Your task to perform on an android device: What's the weather? Image 0: 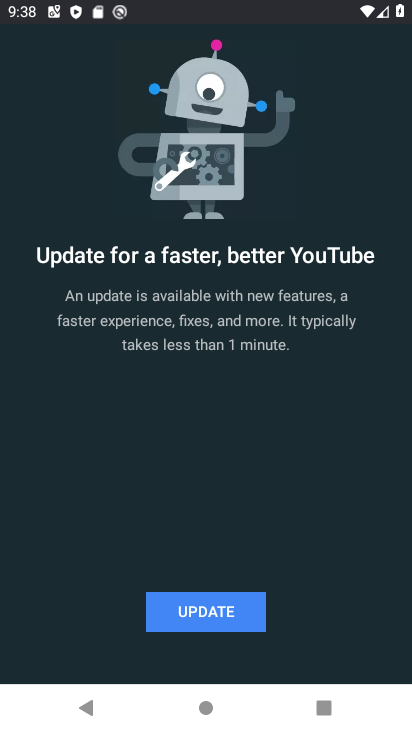
Step 0: press back button
Your task to perform on an android device: What's the weather? Image 1: 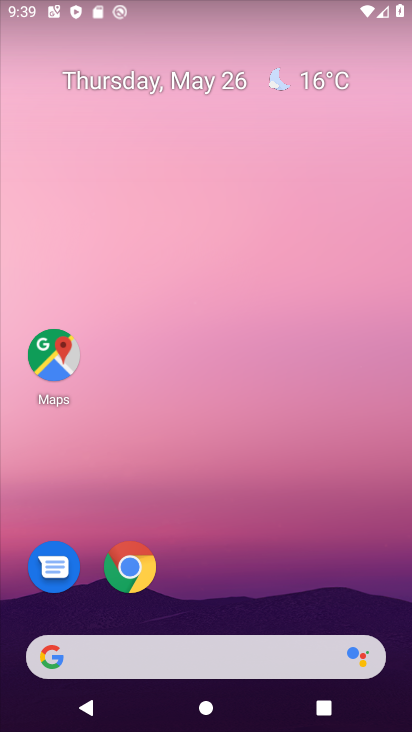
Step 1: drag from (3, 252) to (407, 255)
Your task to perform on an android device: What's the weather? Image 2: 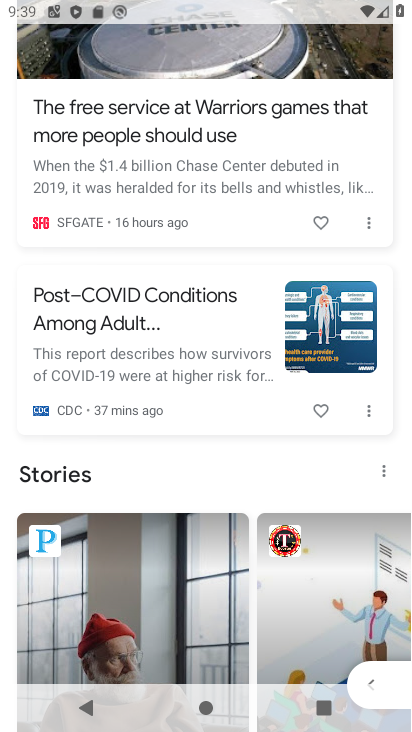
Step 2: drag from (289, 59) to (320, 664)
Your task to perform on an android device: What's the weather? Image 3: 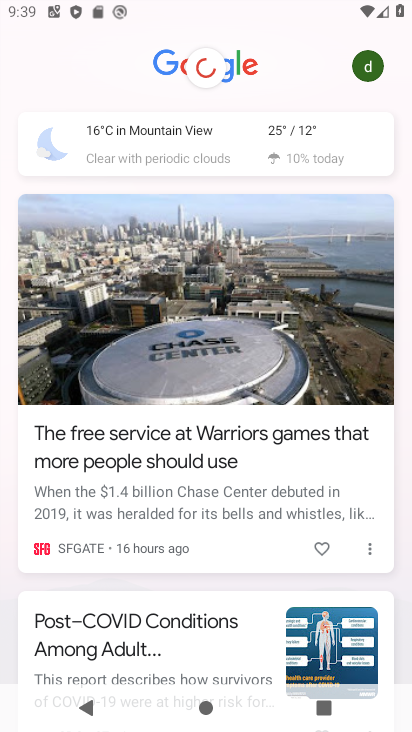
Step 3: click (280, 128)
Your task to perform on an android device: What's the weather? Image 4: 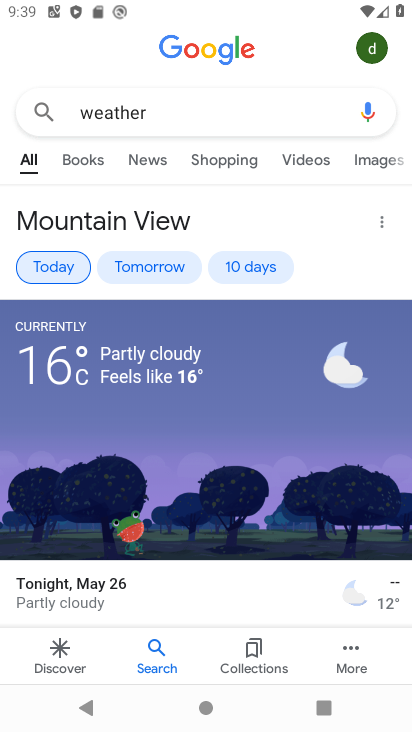
Step 4: click (53, 269)
Your task to perform on an android device: What's the weather? Image 5: 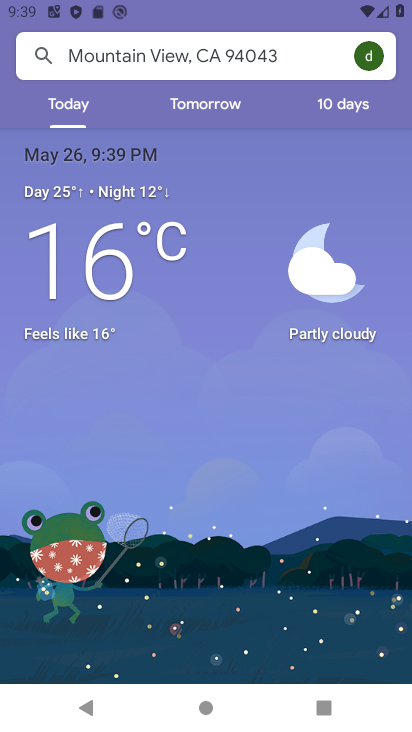
Step 5: task complete